Your task to perform on an android device: create a new album in the google photos Image 0: 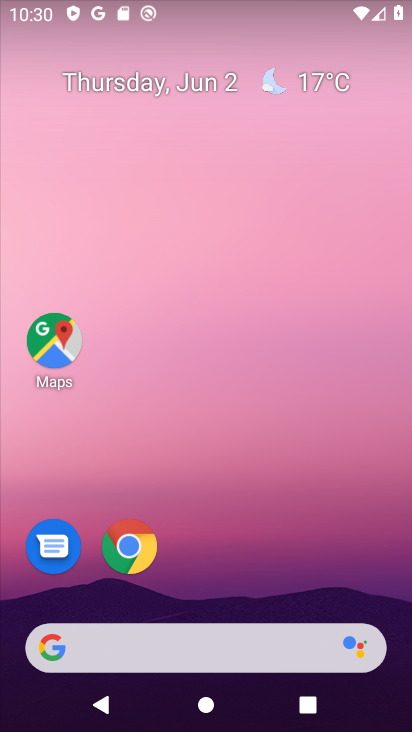
Step 0: drag from (278, 424) to (217, 26)
Your task to perform on an android device: create a new album in the google photos Image 1: 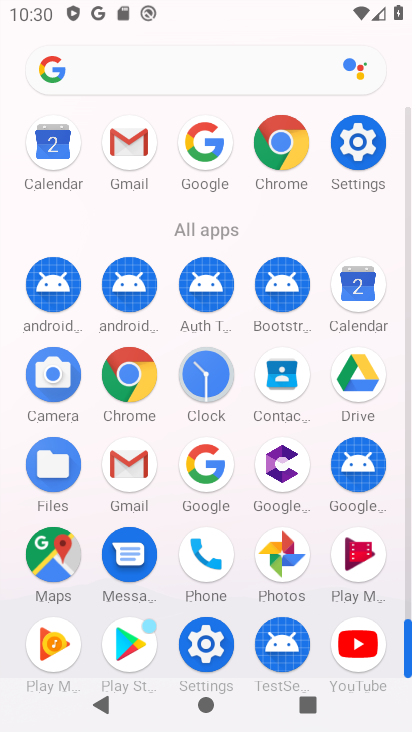
Step 1: click (3, 271)
Your task to perform on an android device: create a new album in the google photos Image 2: 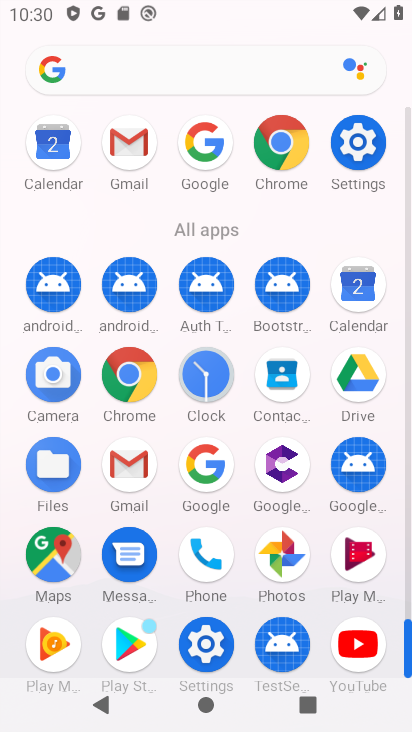
Step 2: click (282, 546)
Your task to perform on an android device: create a new album in the google photos Image 3: 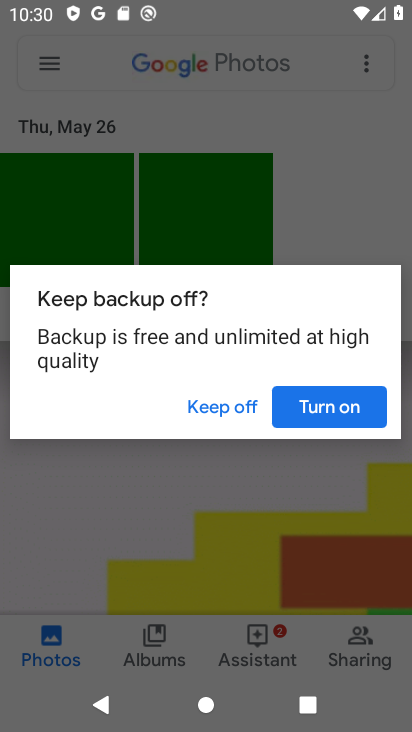
Step 3: click (330, 394)
Your task to perform on an android device: create a new album in the google photos Image 4: 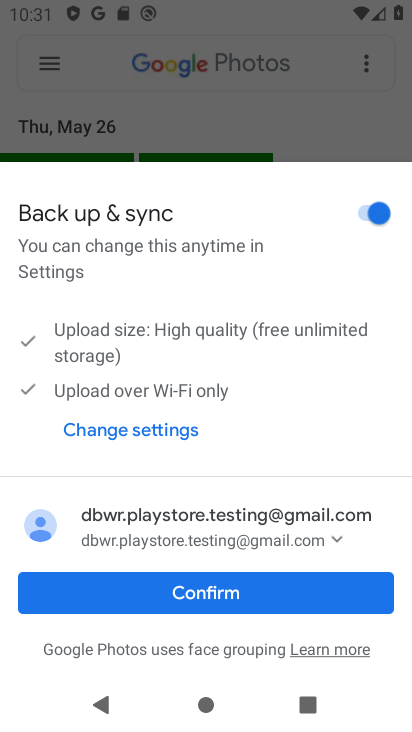
Step 4: click (223, 591)
Your task to perform on an android device: create a new album in the google photos Image 5: 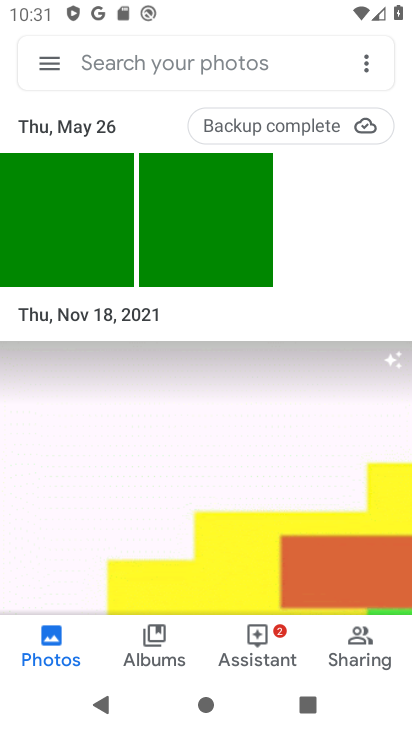
Step 5: click (186, 209)
Your task to perform on an android device: create a new album in the google photos Image 6: 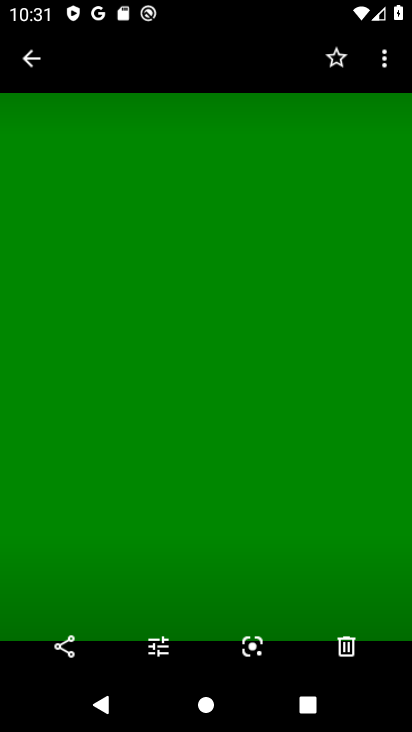
Step 6: click (34, 55)
Your task to perform on an android device: create a new album in the google photos Image 7: 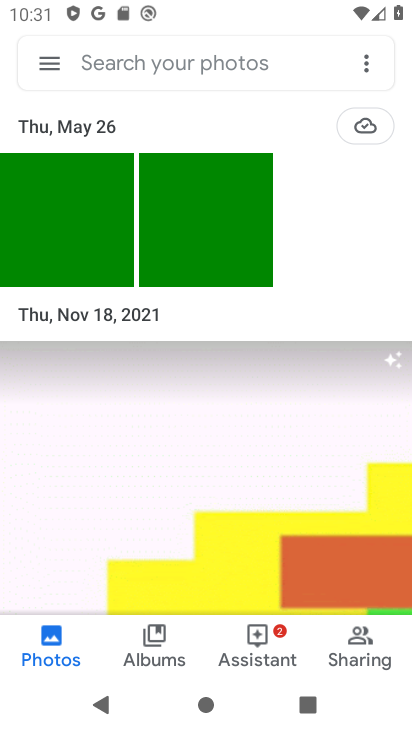
Step 7: click (194, 200)
Your task to perform on an android device: create a new album in the google photos Image 8: 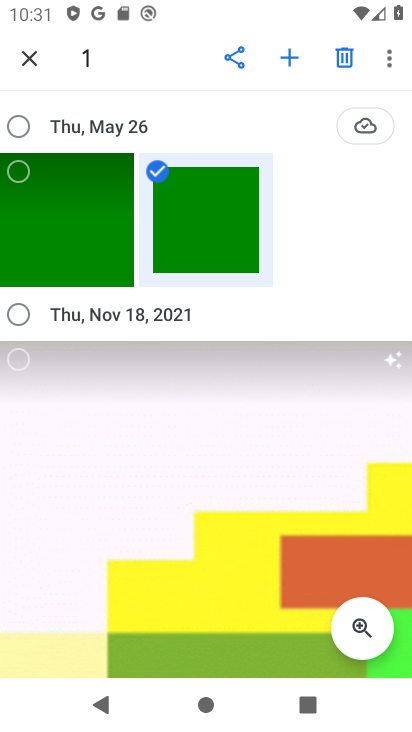
Step 8: click (287, 52)
Your task to perform on an android device: create a new album in the google photos Image 9: 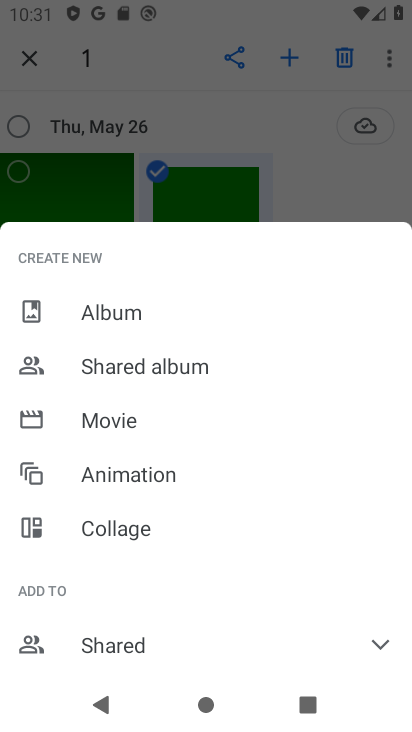
Step 9: click (133, 305)
Your task to perform on an android device: create a new album in the google photos Image 10: 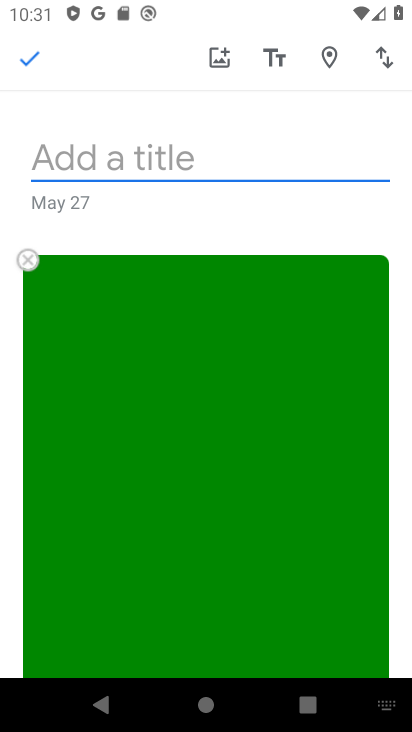
Step 10: type "Xfgh"
Your task to perform on an android device: create a new album in the google photos Image 11: 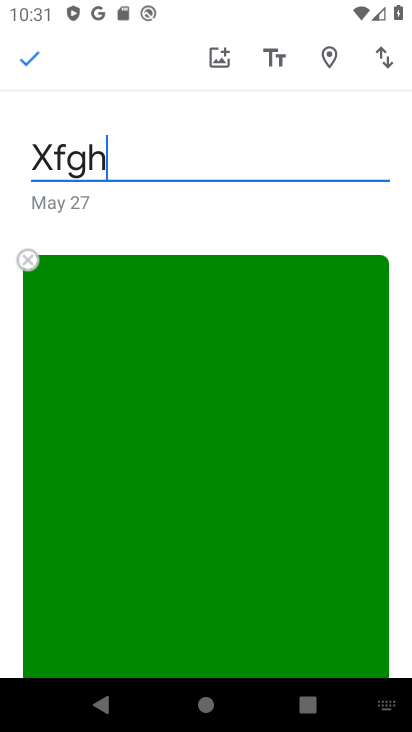
Step 11: type ""
Your task to perform on an android device: create a new album in the google photos Image 12: 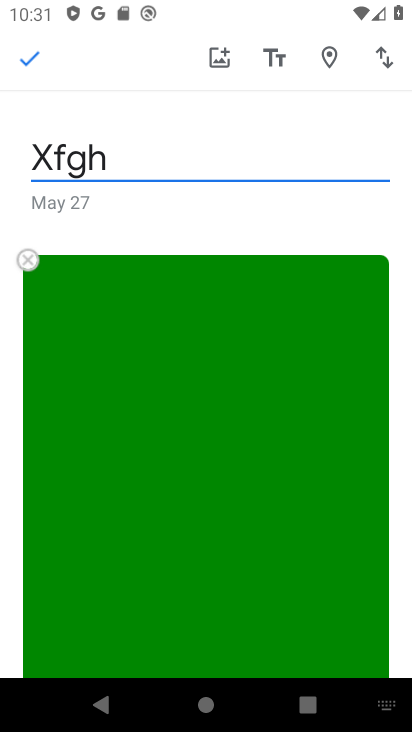
Step 12: click (26, 57)
Your task to perform on an android device: create a new album in the google photos Image 13: 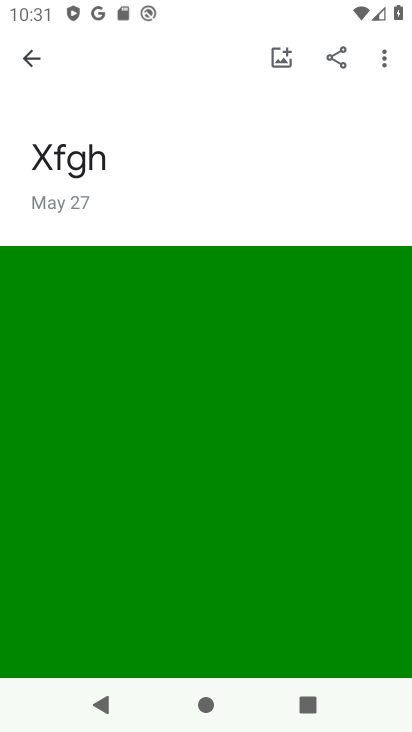
Step 13: task complete